Your task to perform on an android device: Go to Yahoo.com Image 0: 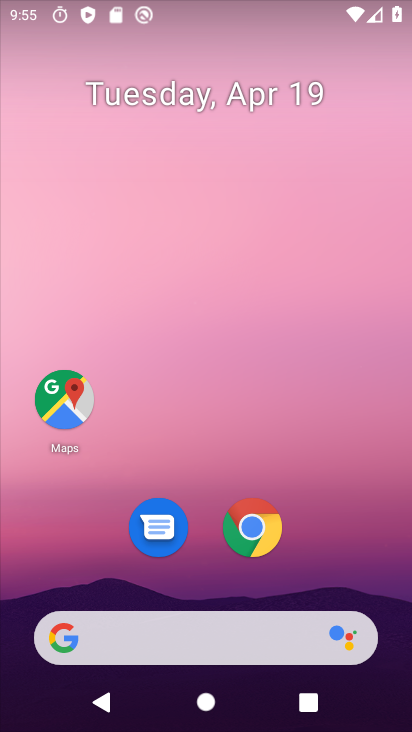
Step 0: click (313, 176)
Your task to perform on an android device: Go to Yahoo.com Image 1: 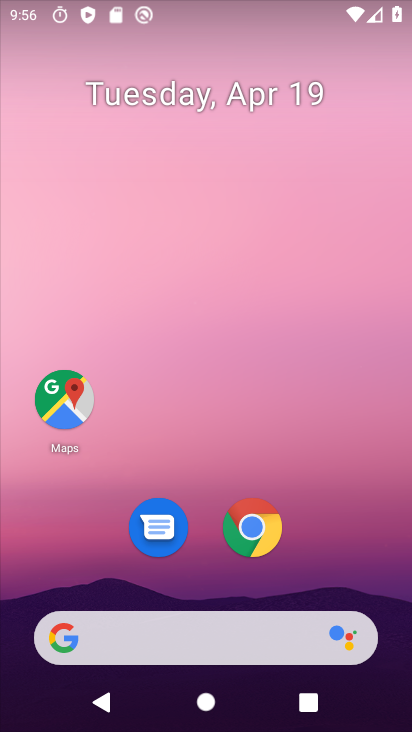
Step 1: drag from (274, 645) to (279, 150)
Your task to perform on an android device: Go to Yahoo.com Image 2: 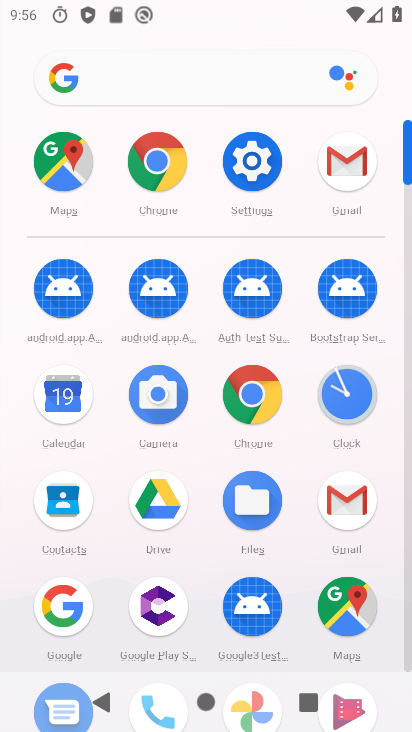
Step 2: click (153, 177)
Your task to perform on an android device: Go to Yahoo.com Image 3: 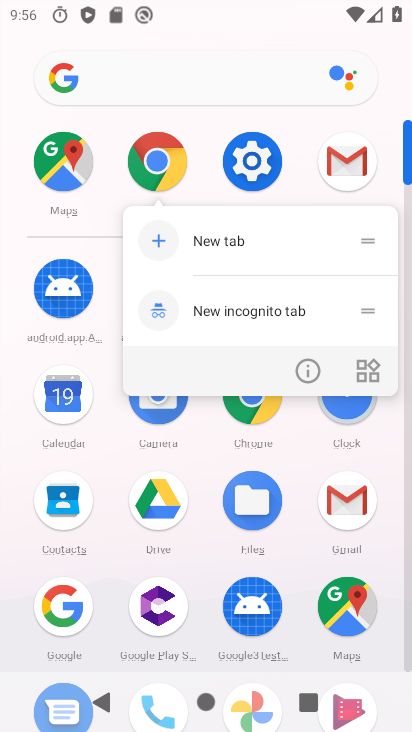
Step 3: click (153, 177)
Your task to perform on an android device: Go to Yahoo.com Image 4: 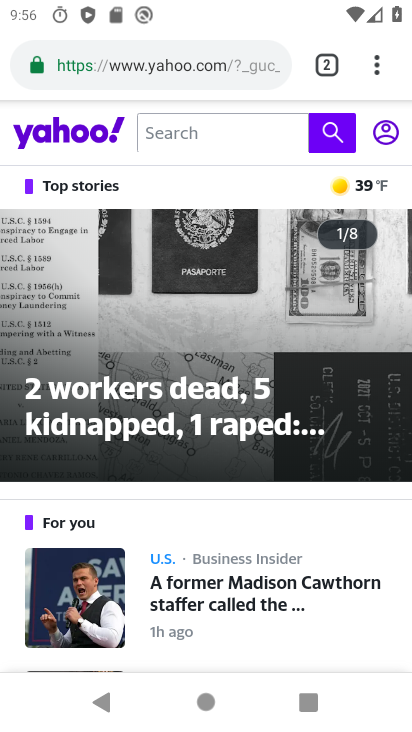
Step 4: click (189, 63)
Your task to perform on an android device: Go to Yahoo.com Image 5: 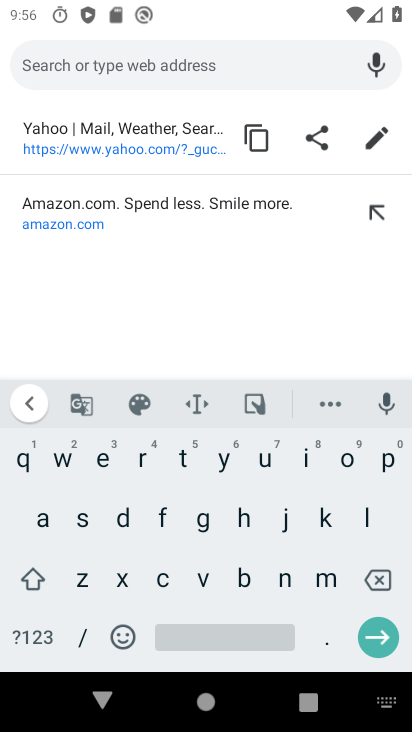
Step 5: click (134, 126)
Your task to perform on an android device: Go to Yahoo.com Image 6: 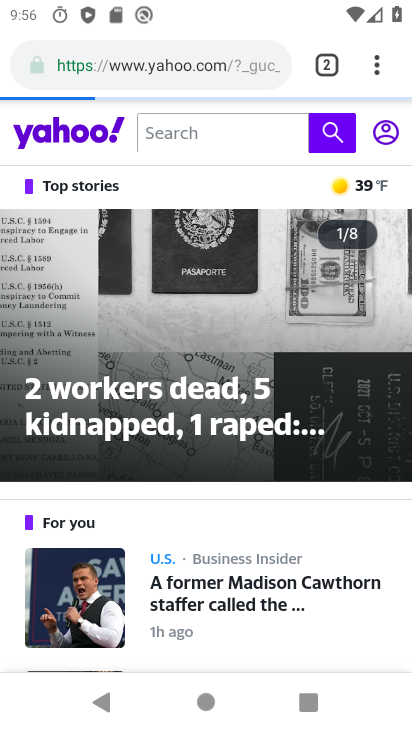
Step 6: task complete